Your task to perform on an android device: set the stopwatch Image 0: 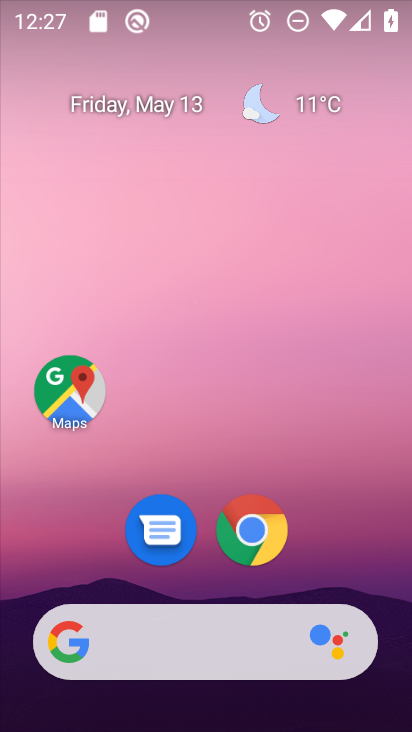
Step 0: press home button
Your task to perform on an android device: set the stopwatch Image 1: 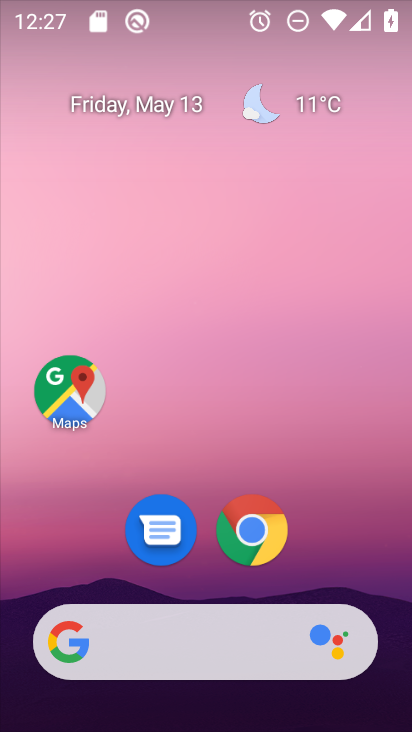
Step 1: drag from (176, 642) to (268, 172)
Your task to perform on an android device: set the stopwatch Image 2: 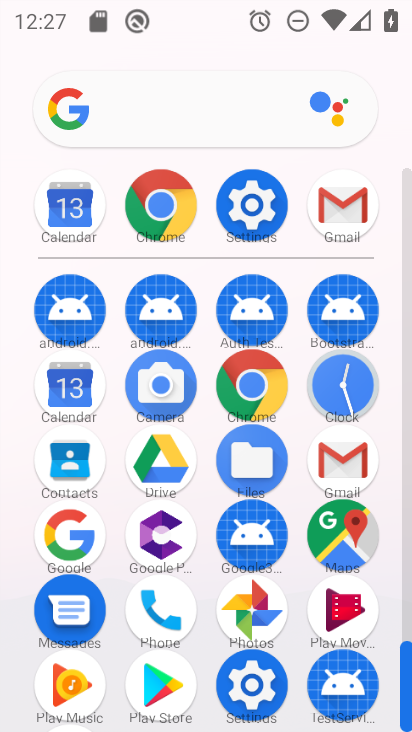
Step 2: click (343, 403)
Your task to perform on an android device: set the stopwatch Image 3: 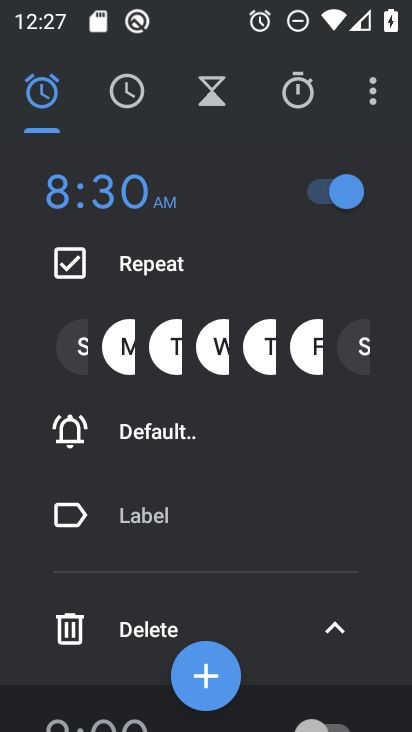
Step 3: click (295, 97)
Your task to perform on an android device: set the stopwatch Image 4: 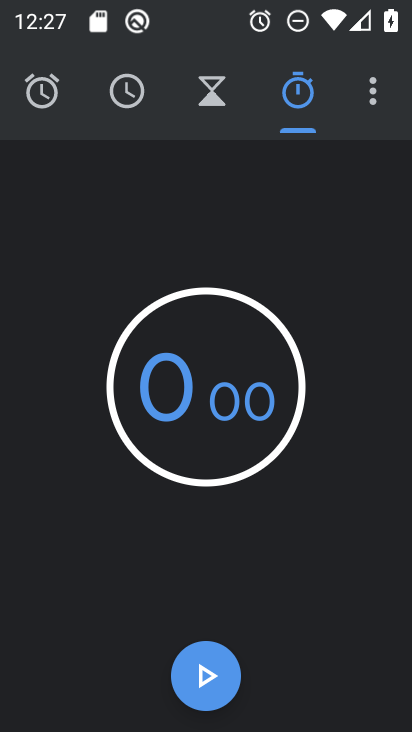
Step 4: click (204, 394)
Your task to perform on an android device: set the stopwatch Image 5: 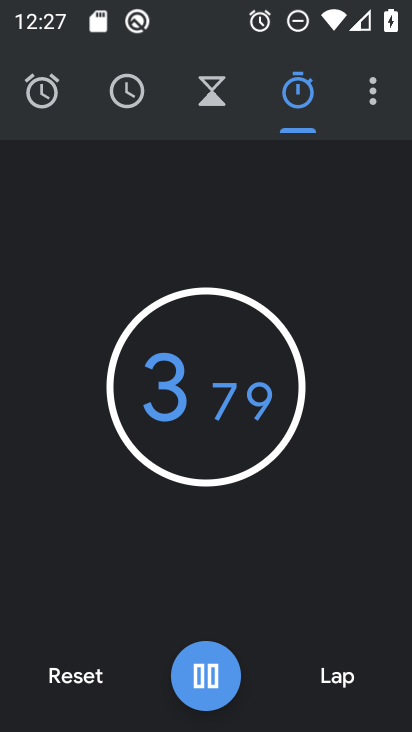
Step 5: click (204, 394)
Your task to perform on an android device: set the stopwatch Image 6: 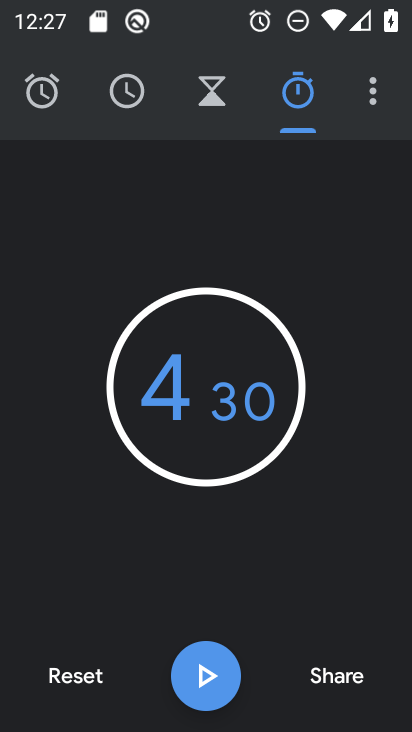
Step 6: click (209, 679)
Your task to perform on an android device: set the stopwatch Image 7: 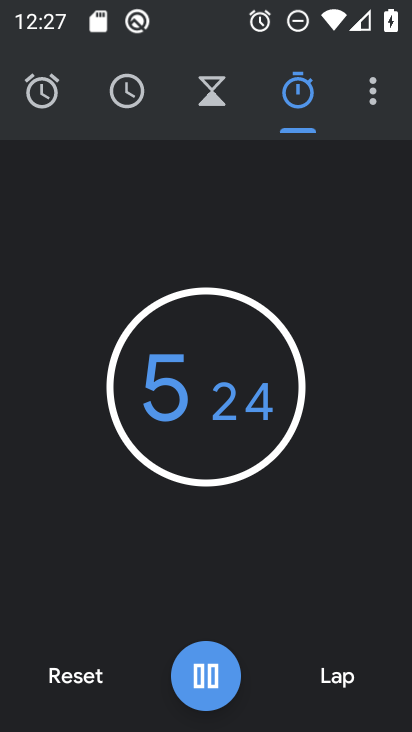
Step 7: click (198, 680)
Your task to perform on an android device: set the stopwatch Image 8: 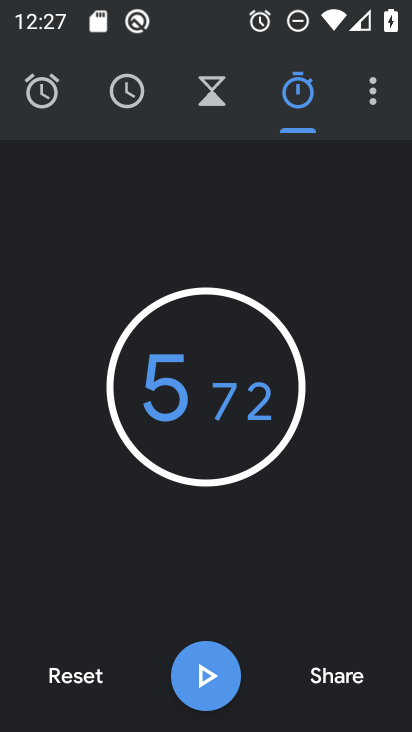
Step 8: task complete